Your task to perform on an android device: make emails show in primary in the gmail app Image 0: 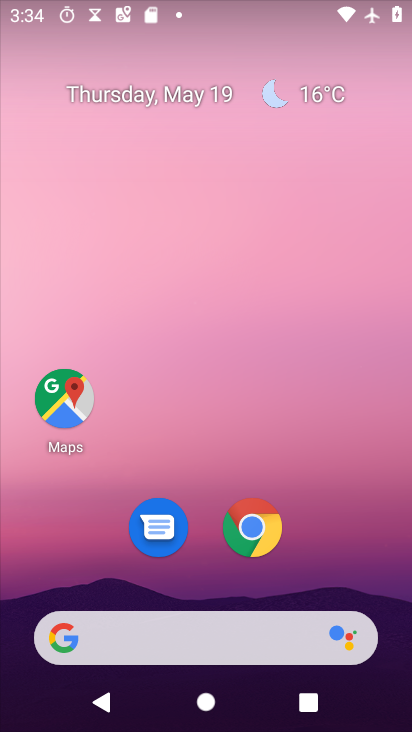
Step 0: press back button
Your task to perform on an android device: make emails show in primary in the gmail app Image 1: 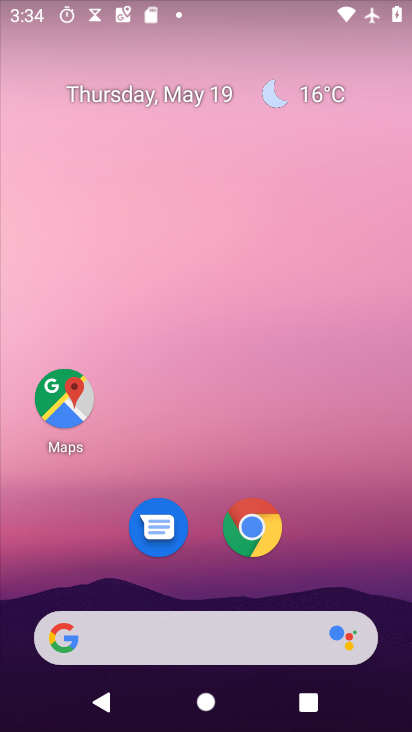
Step 1: drag from (351, 549) to (212, 8)
Your task to perform on an android device: make emails show in primary in the gmail app Image 2: 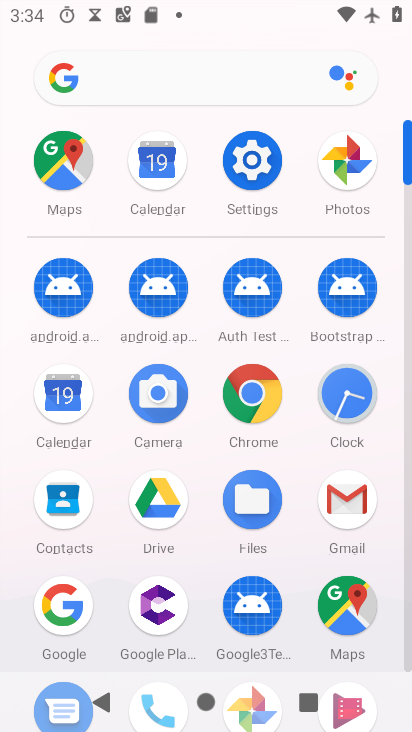
Step 2: click (363, 508)
Your task to perform on an android device: make emails show in primary in the gmail app Image 3: 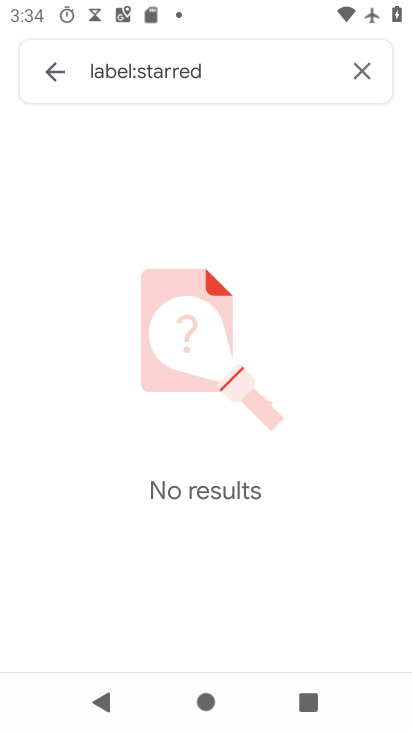
Step 3: click (51, 67)
Your task to perform on an android device: make emails show in primary in the gmail app Image 4: 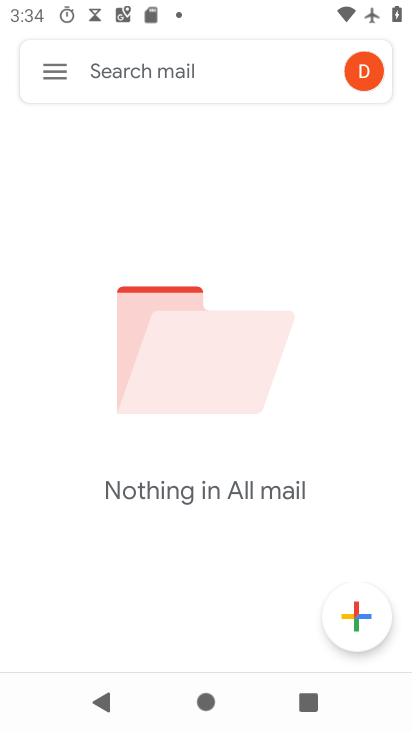
Step 4: click (57, 75)
Your task to perform on an android device: make emails show in primary in the gmail app Image 5: 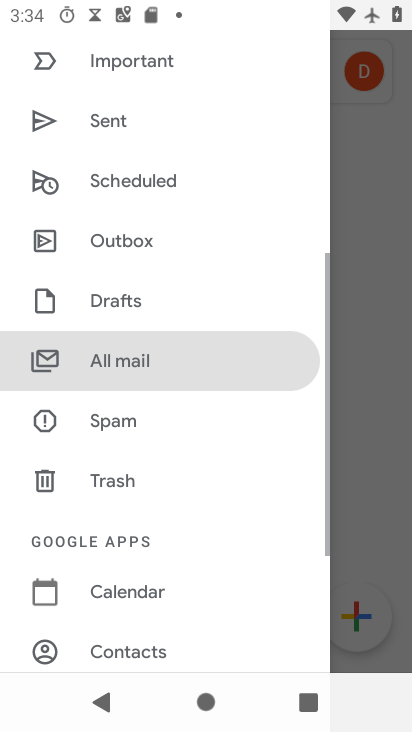
Step 5: task complete